Your task to perform on an android device: empty trash in the gmail app Image 0: 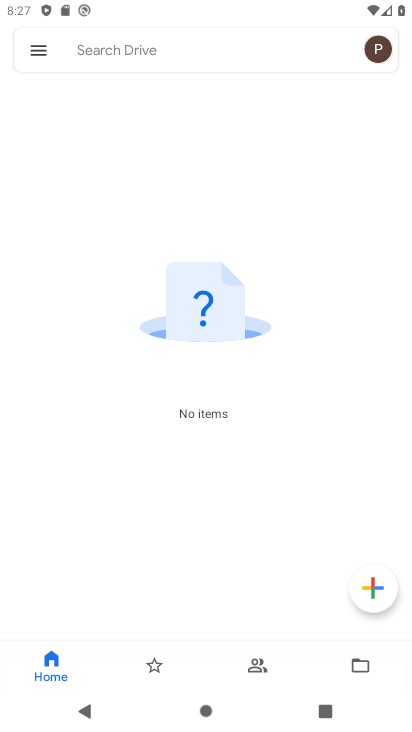
Step 0: press home button
Your task to perform on an android device: empty trash in the gmail app Image 1: 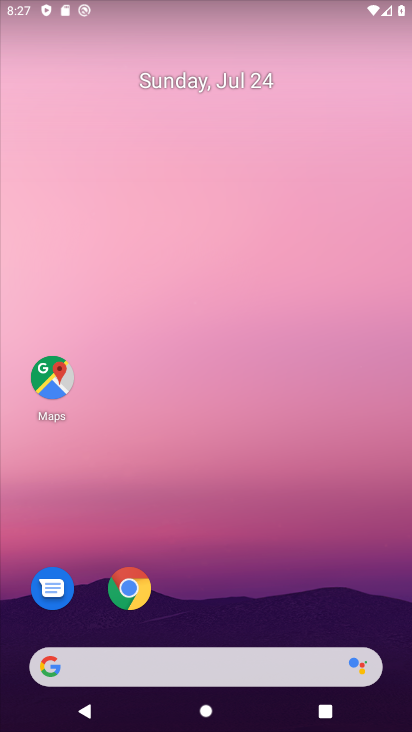
Step 1: drag from (313, 553) to (202, 0)
Your task to perform on an android device: empty trash in the gmail app Image 2: 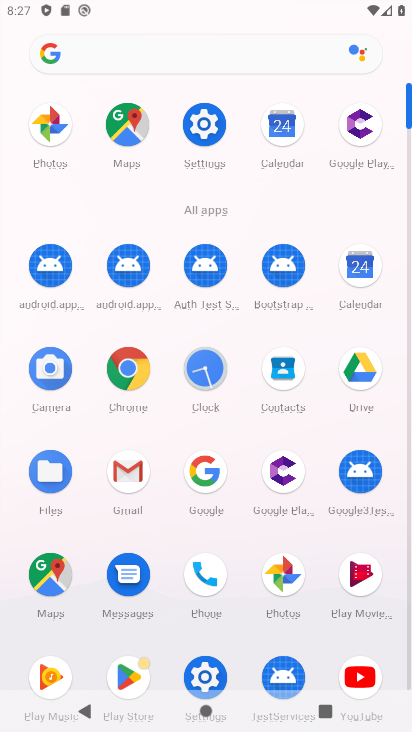
Step 2: click (127, 484)
Your task to perform on an android device: empty trash in the gmail app Image 3: 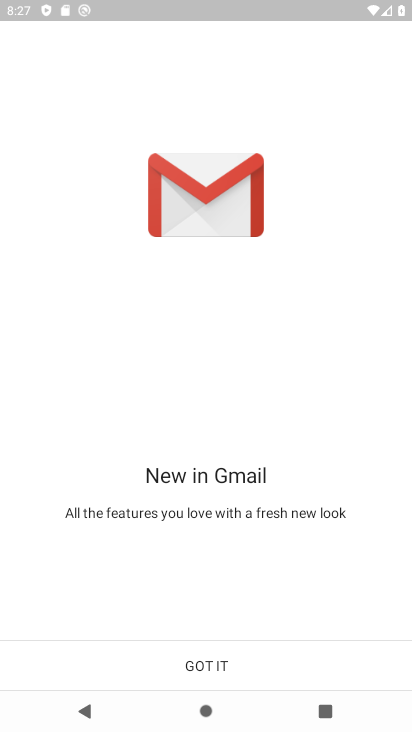
Step 3: click (283, 661)
Your task to perform on an android device: empty trash in the gmail app Image 4: 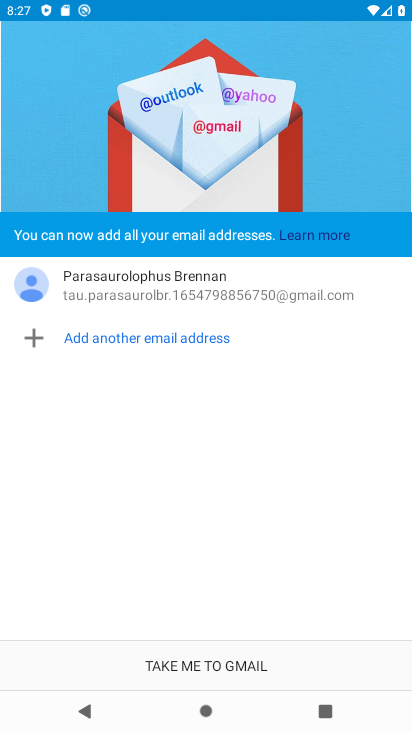
Step 4: click (283, 661)
Your task to perform on an android device: empty trash in the gmail app Image 5: 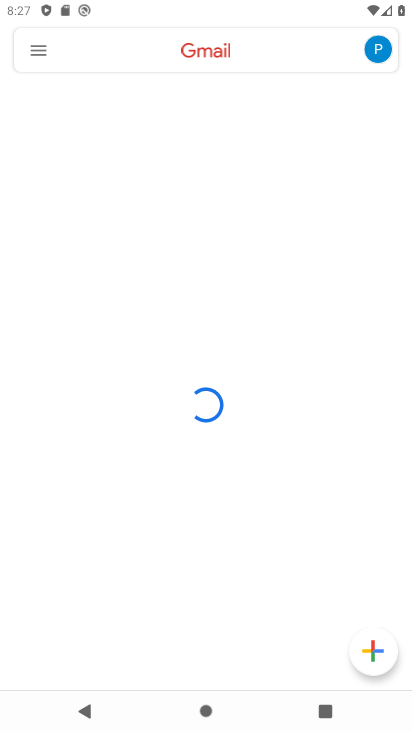
Step 5: click (40, 53)
Your task to perform on an android device: empty trash in the gmail app Image 6: 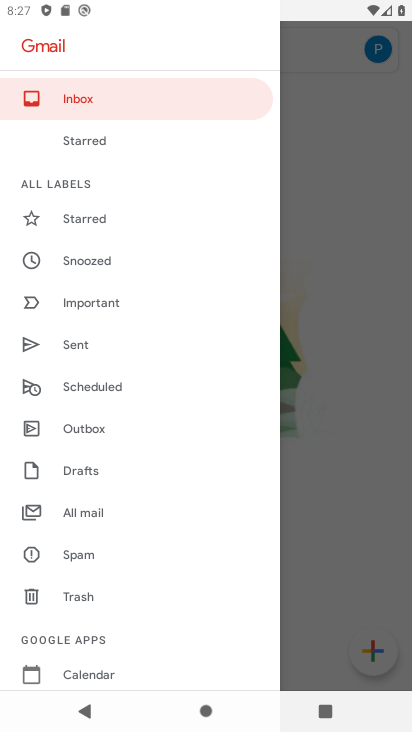
Step 6: click (95, 596)
Your task to perform on an android device: empty trash in the gmail app Image 7: 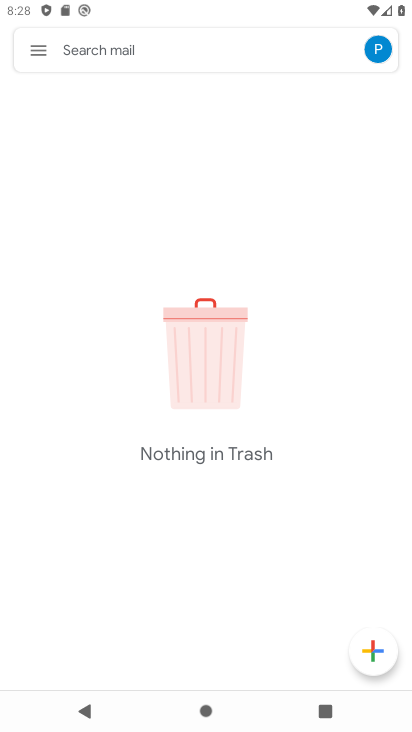
Step 7: task complete